Your task to perform on an android device: refresh tabs in the chrome app Image 0: 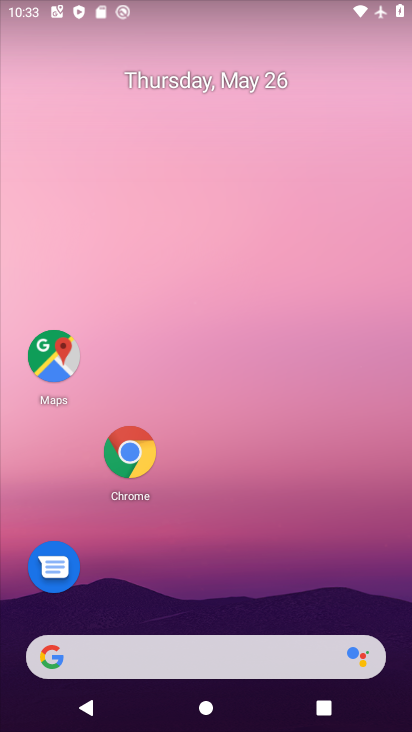
Step 0: click (122, 458)
Your task to perform on an android device: refresh tabs in the chrome app Image 1: 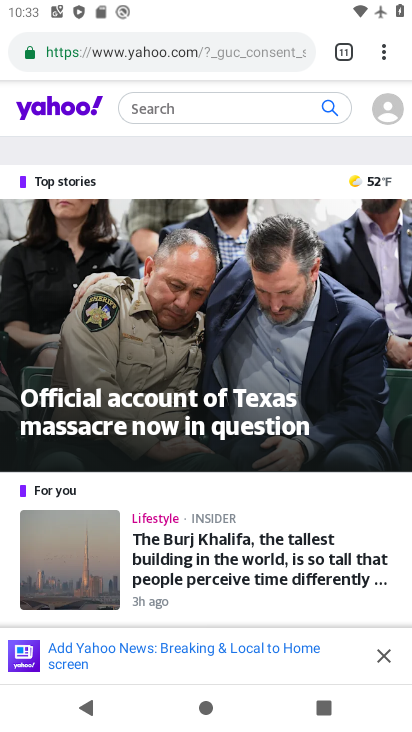
Step 1: click (382, 56)
Your task to perform on an android device: refresh tabs in the chrome app Image 2: 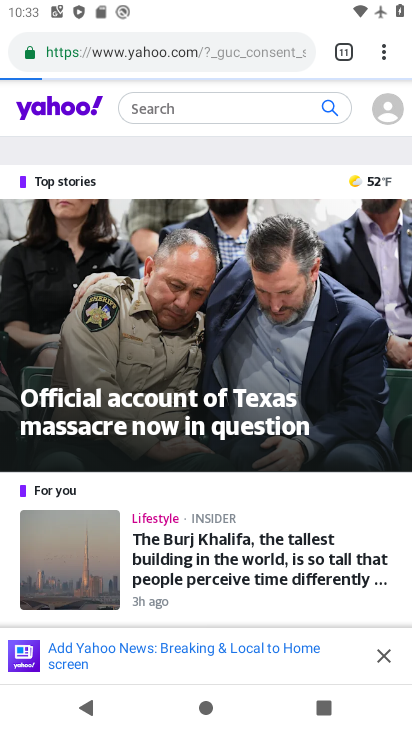
Step 2: click (382, 58)
Your task to perform on an android device: refresh tabs in the chrome app Image 3: 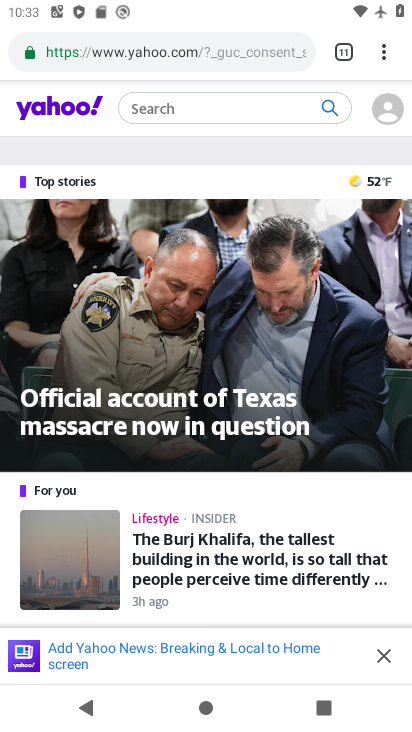
Step 3: task complete